Your task to perform on an android device: change notification settings in the gmail app Image 0: 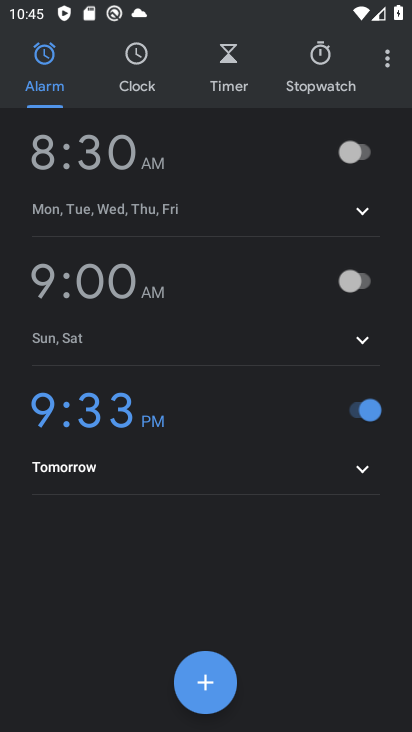
Step 0: press home button
Your task to perform on an android device: change notification settings in the gmail app Image 1: 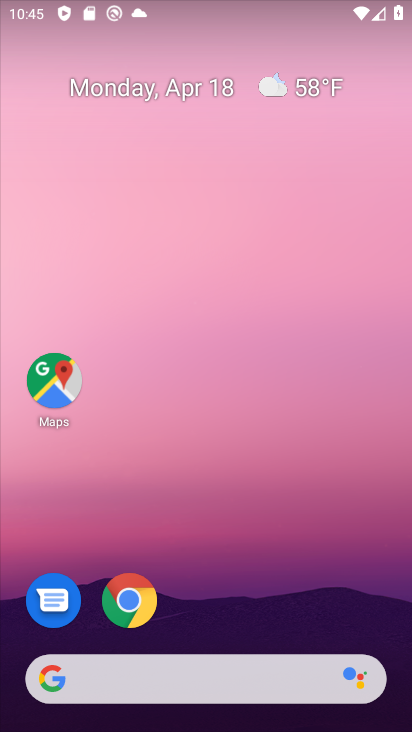
Step 1: drag from (203, 615) to (271, 11)
Your task to perform on an android device: change notification settings in the gmail app Image 2: 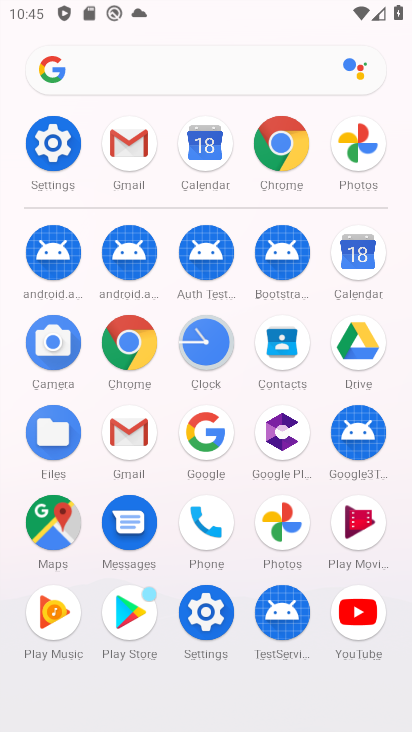
Step 2: click (130, 433)
Your task to perform on an android device: change notification settings in the gmail app Image 3: 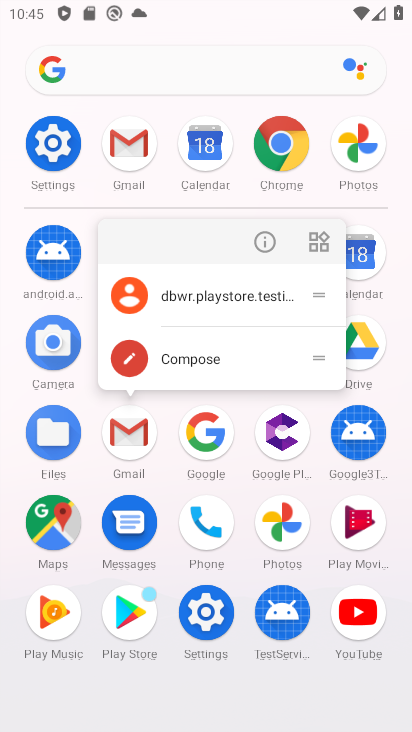
Step 3: click (130, 433)
Your task to perform on an android device: change notification settings in the gmail app Image 4: 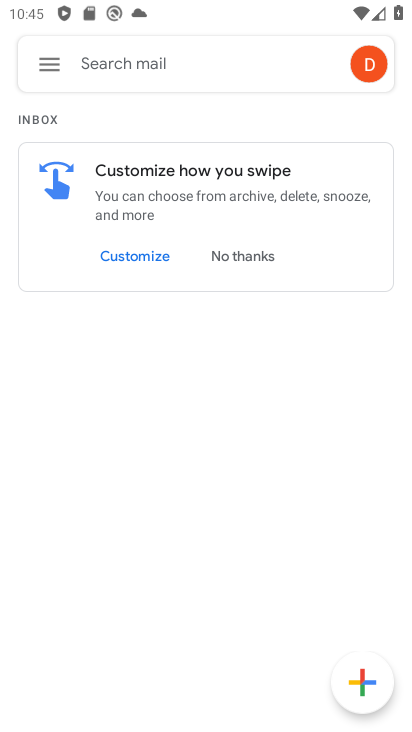
Step 4: click (52, 63)
Your task to perform on an android device: change notification settings in the gmail app Image 5: 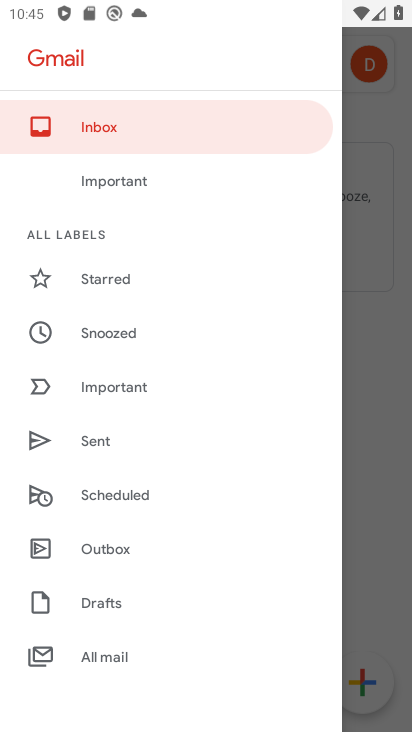
Step 5: drag from (171, 616) to (191, 236)
Your task to perform on an android device: change notification settings in the gmail app Image 6: 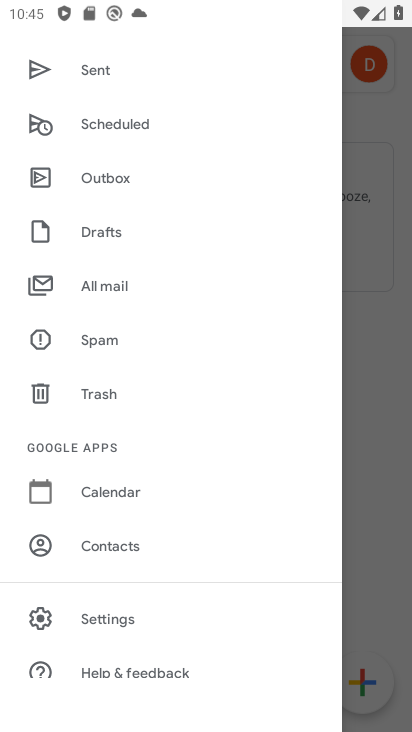
Step 6: click (112, 618)
Your task to perform on an android device: change notification settings in the gmail app Image 7: 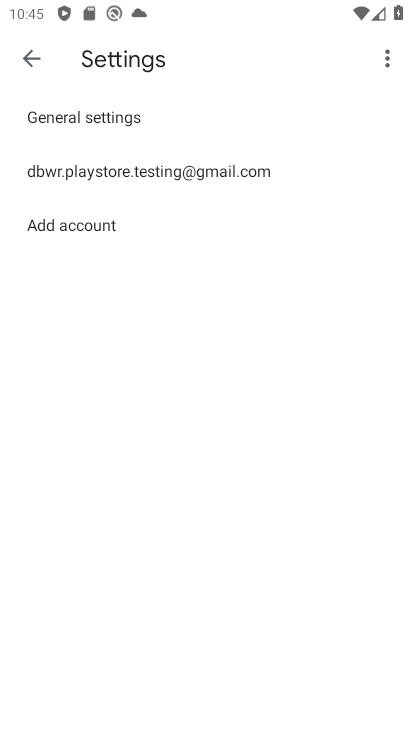
Step 7: click (78, 118)
Your task to perform on an android device: change notification settings in the gmail app Image 8: 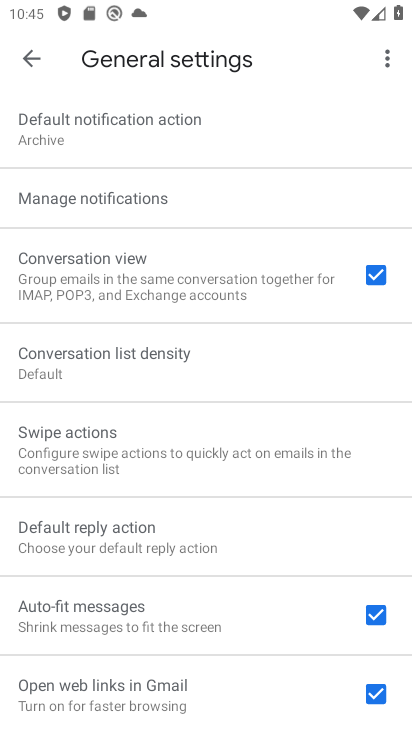
Step 8: click (88, 193)
Your task to perform on an android device: change notification settings in the gmail app Image 9: 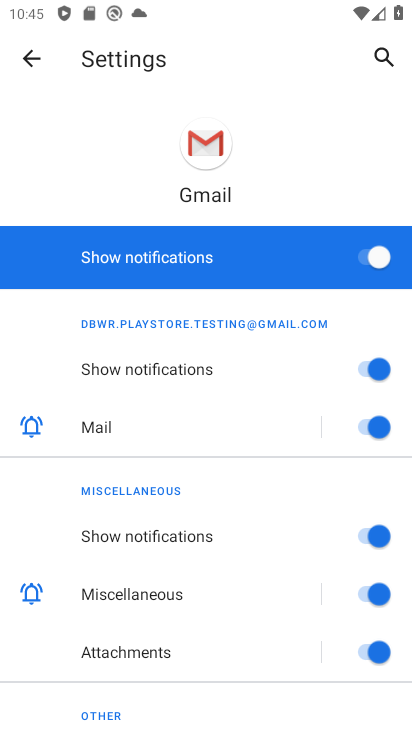
Step 9: click (377, 265)
Your task to perform on an android device: change notification settings in the gmail app Image 10: 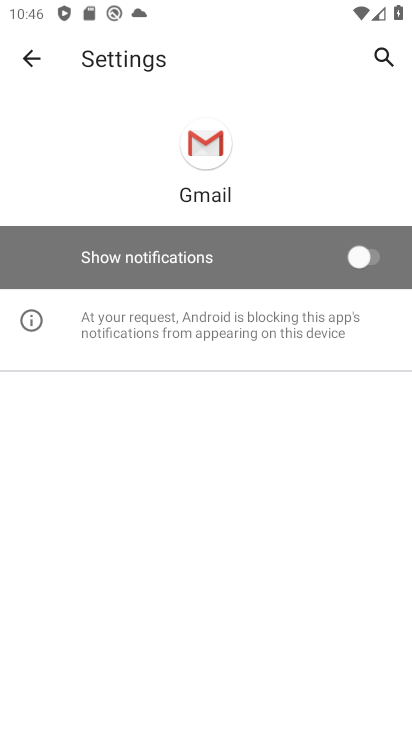
Step 10: task complete